Your task to perform on an android device: turn on sleep mode Image 0: 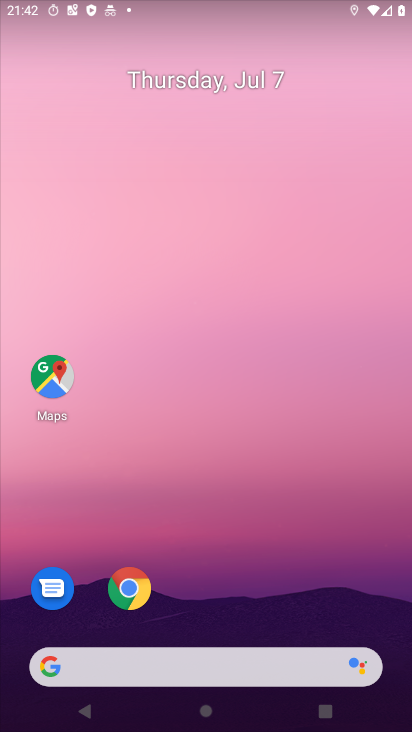
Step 0: drag from (275, 465) to (218, 171)
Your task to perform on an android device: turn on sleep mode Image 1: 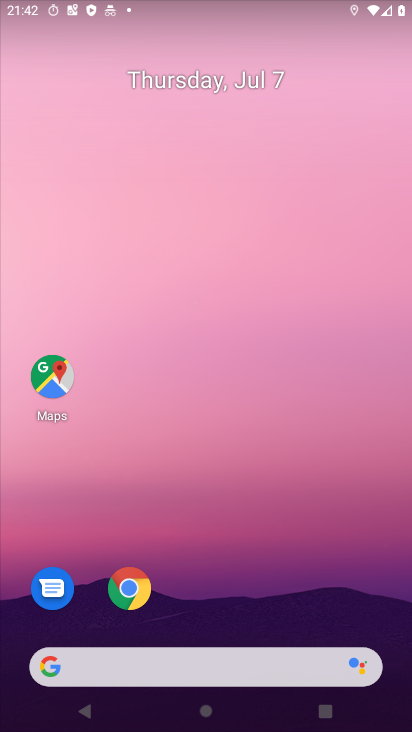
Step 1: drag from (292, 679) to (248, 165)
Your task to perform on an android device: turn on sleep mode Image 2: 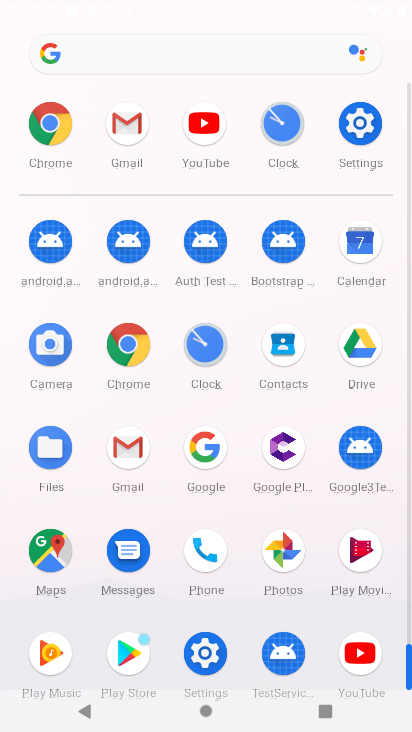
Step 2: click (354, 134)
Your task to perform on an android device: turn on sleep mode Image 3: 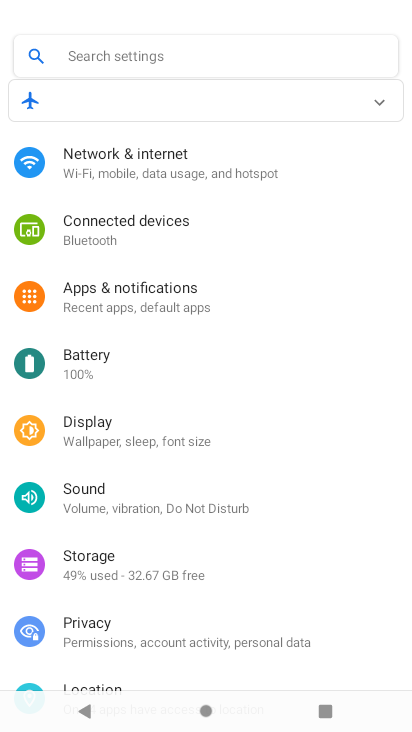
Step 3: click (133, 461)
Your task to perform on an android device: turn on sleep mode Image 4: 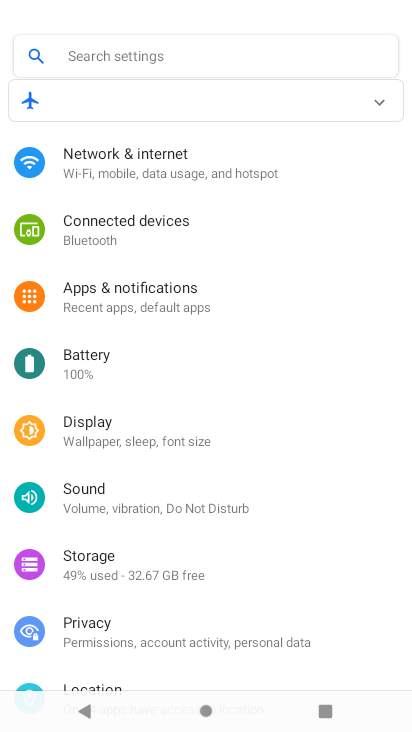
Step 4: click (130, 450)
Your task to perform on an android device: turn on sleep mode Image 5: 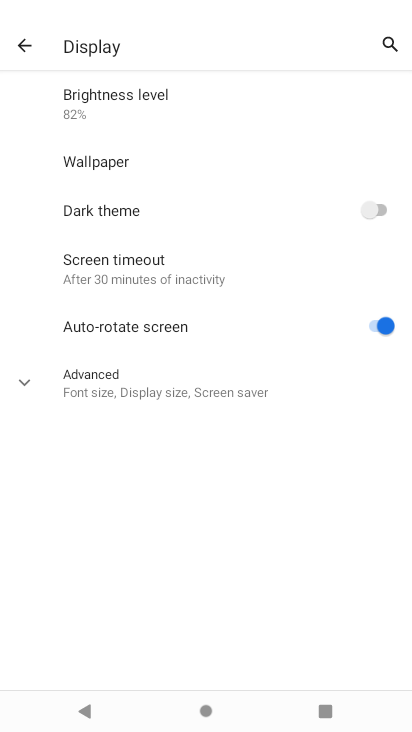
Step 5: task complete